Your task to perform on an android device: Search for Italian restaurants on Maps Image 0: 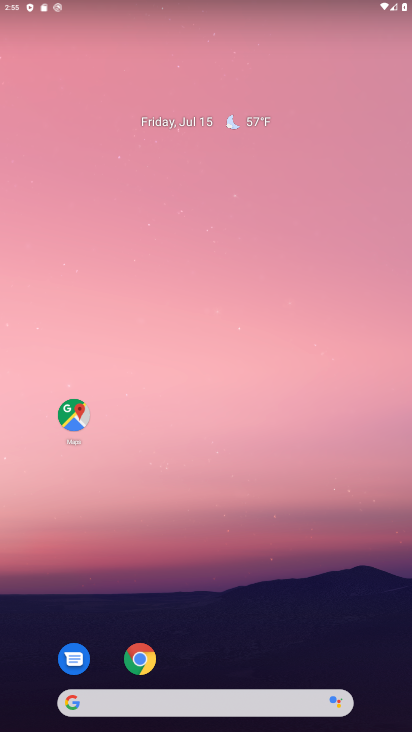
Step 0: click (75, 408)
Your task to perform on an android device: Search for Italian restaurants on Maps Image 1: 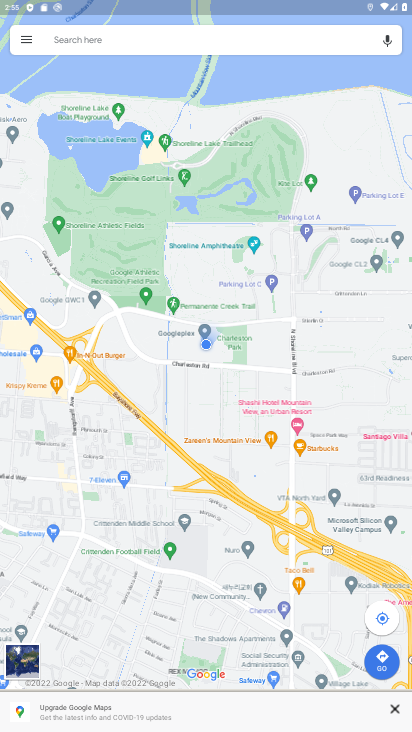
Step 1: click (251, 36)
Your task to perform on an android device: Search for Italian restaurants on Maps Image 2: 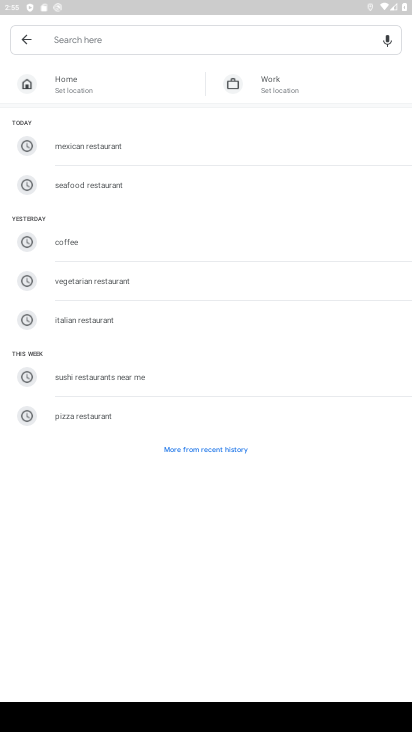
Step 2: type "italian restaurants"
Your task to perform on an android device: Search for Italian restaurants on Maps Image 3: 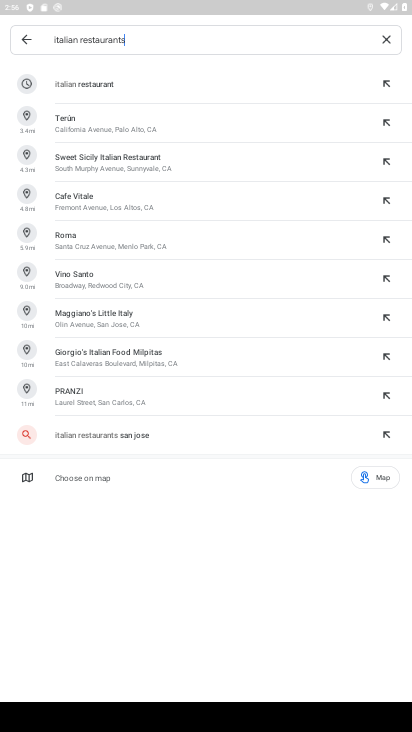
Step 3: click (105, 84)
Your task to perform on an android device: Search for Italian restaurants on Maps Image 4: 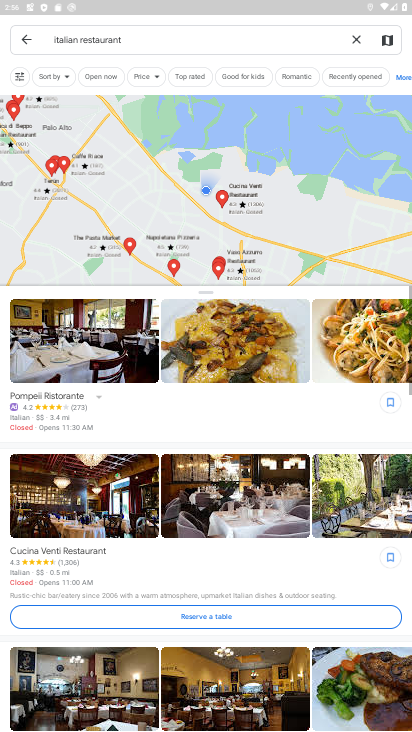
Step 4: task complete